Your task to perform on an android device: Show me recent news Image 0: 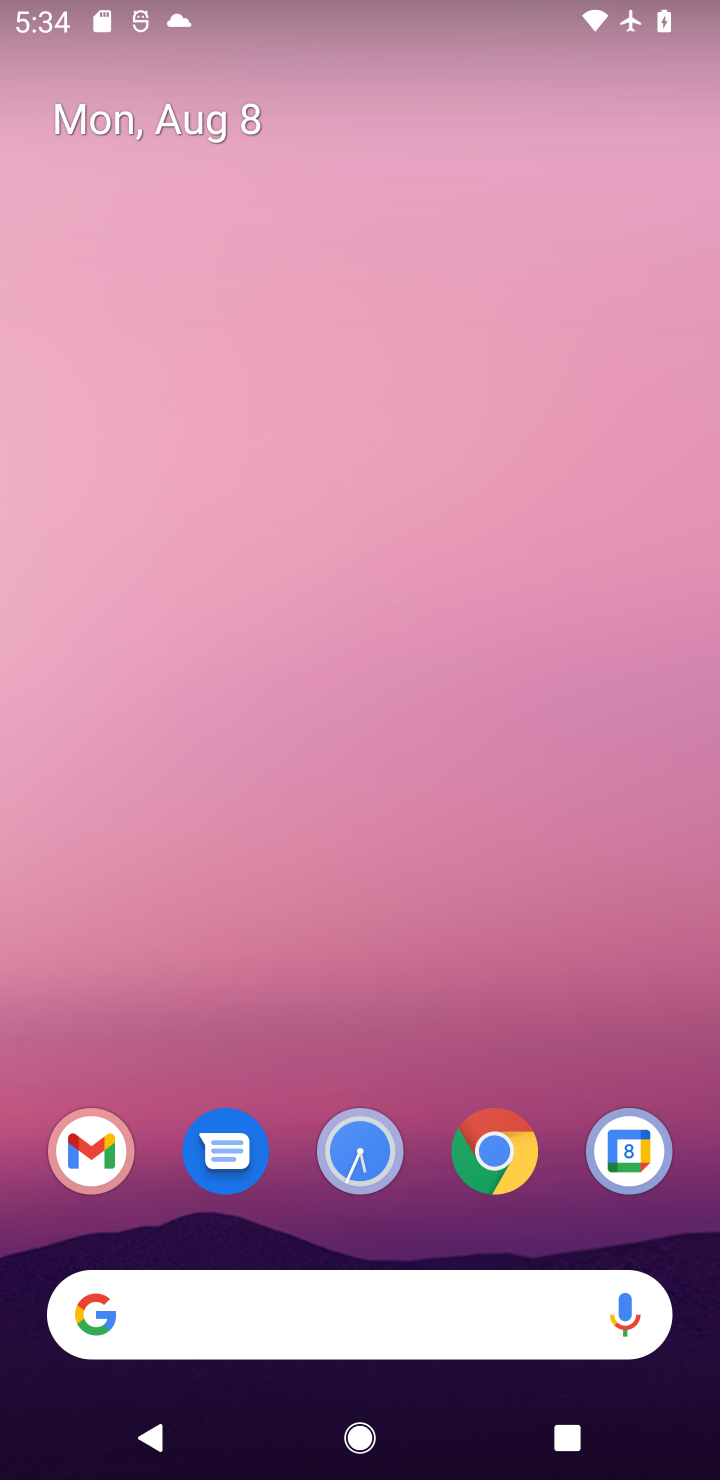
Step 0: drag from (486, 1027) to (427, 124)
Your task to perform on an android device: Show me recent news Image 1: 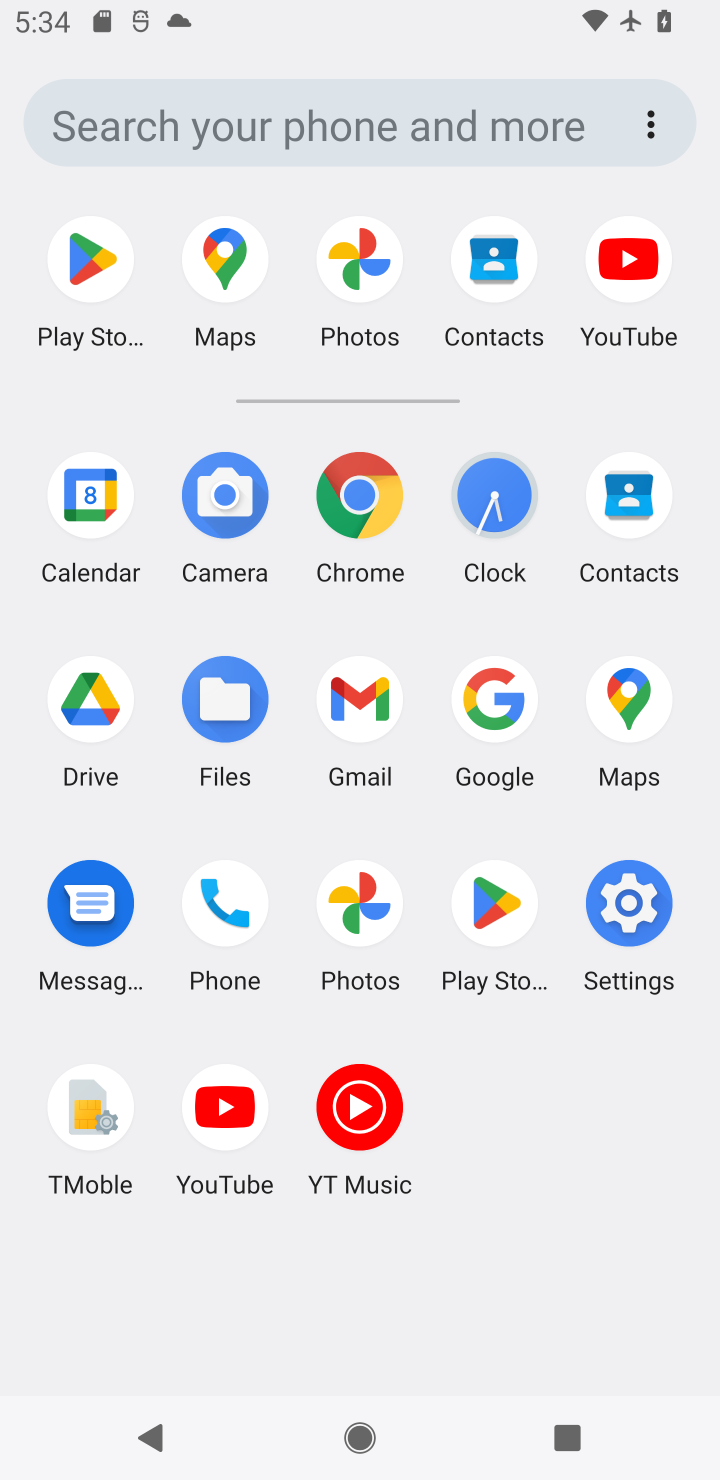
Step 1: click (486, 706)
Your task to perform on an android device: Show me recent news Image 2: 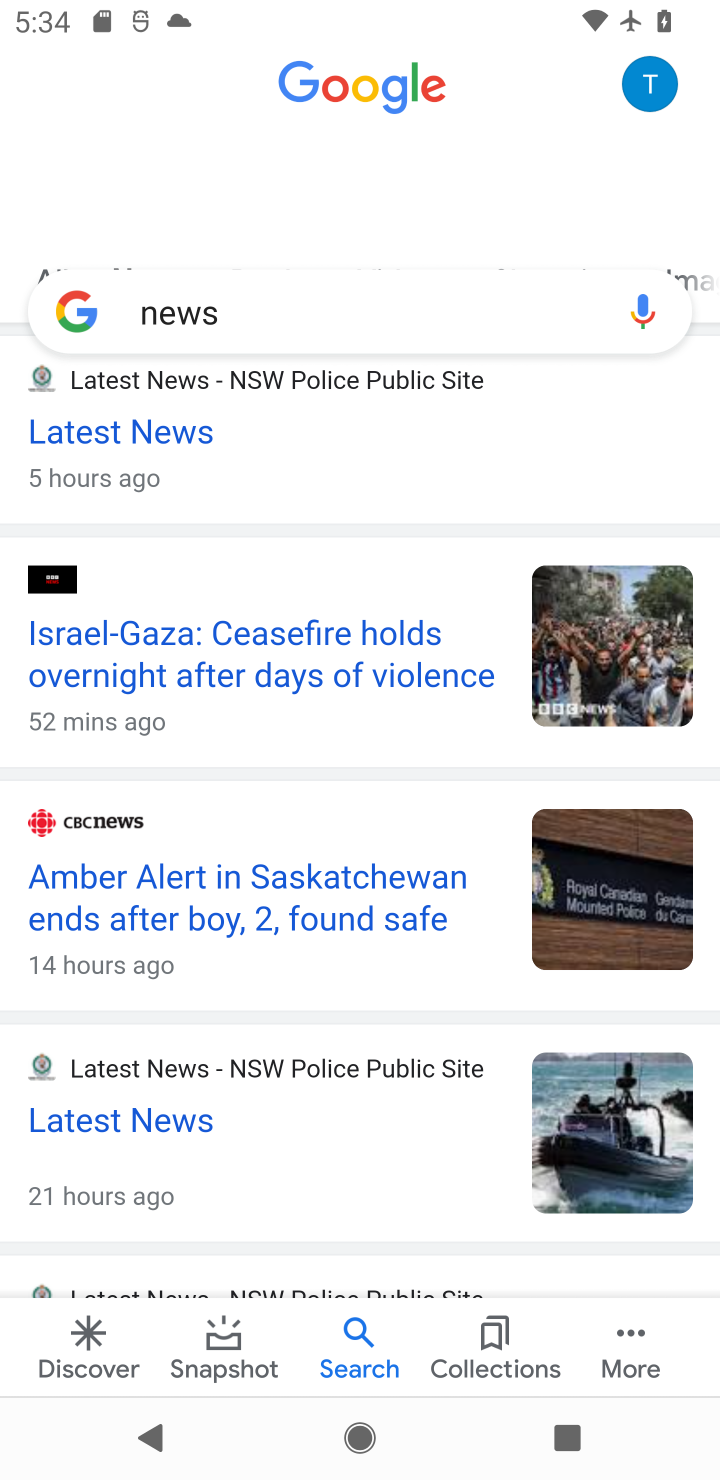
Step 2: drag from (298, 425) to (294, 1043)
Your task to perform on an android device: Show me recent news Image 3: 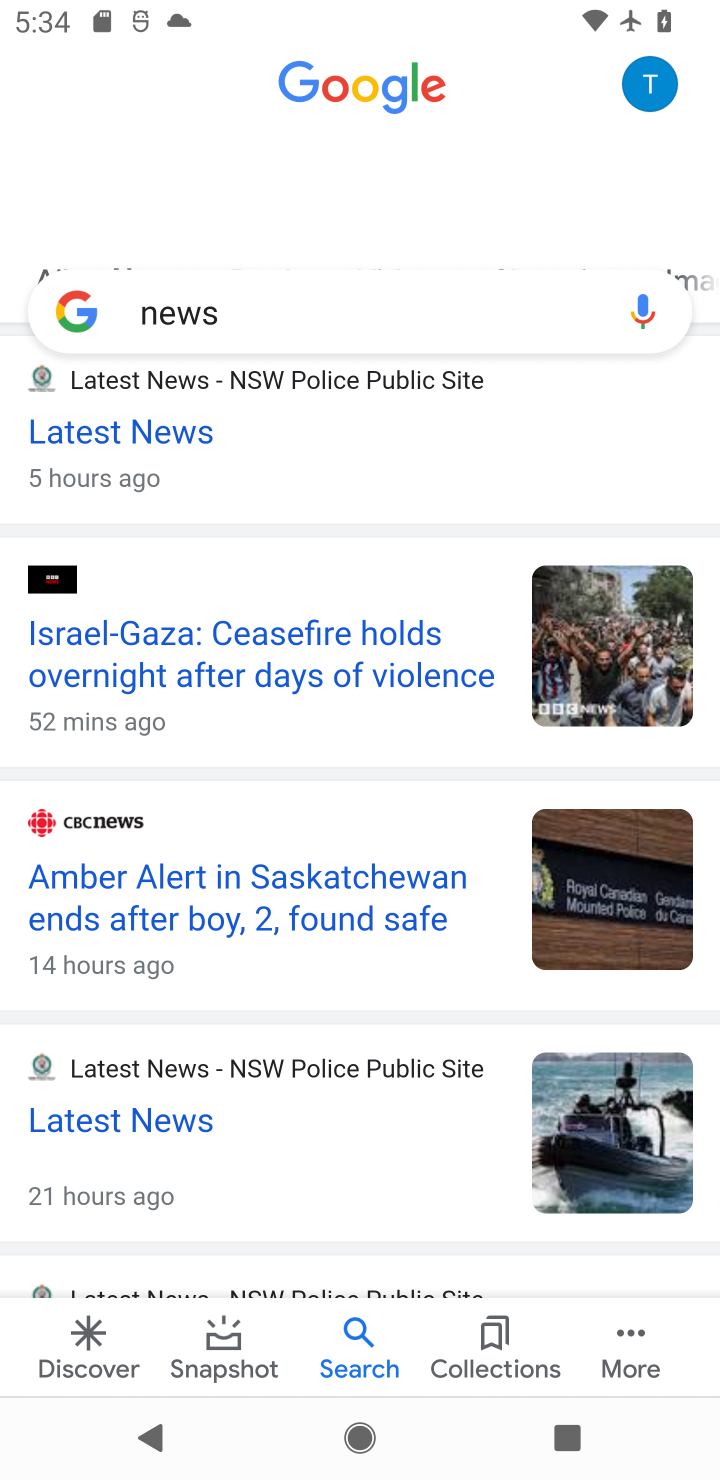
Step 3: drag from (221, 437) to (307, 1007)
Your task to perform on an android device: Show me recent news Image 4: 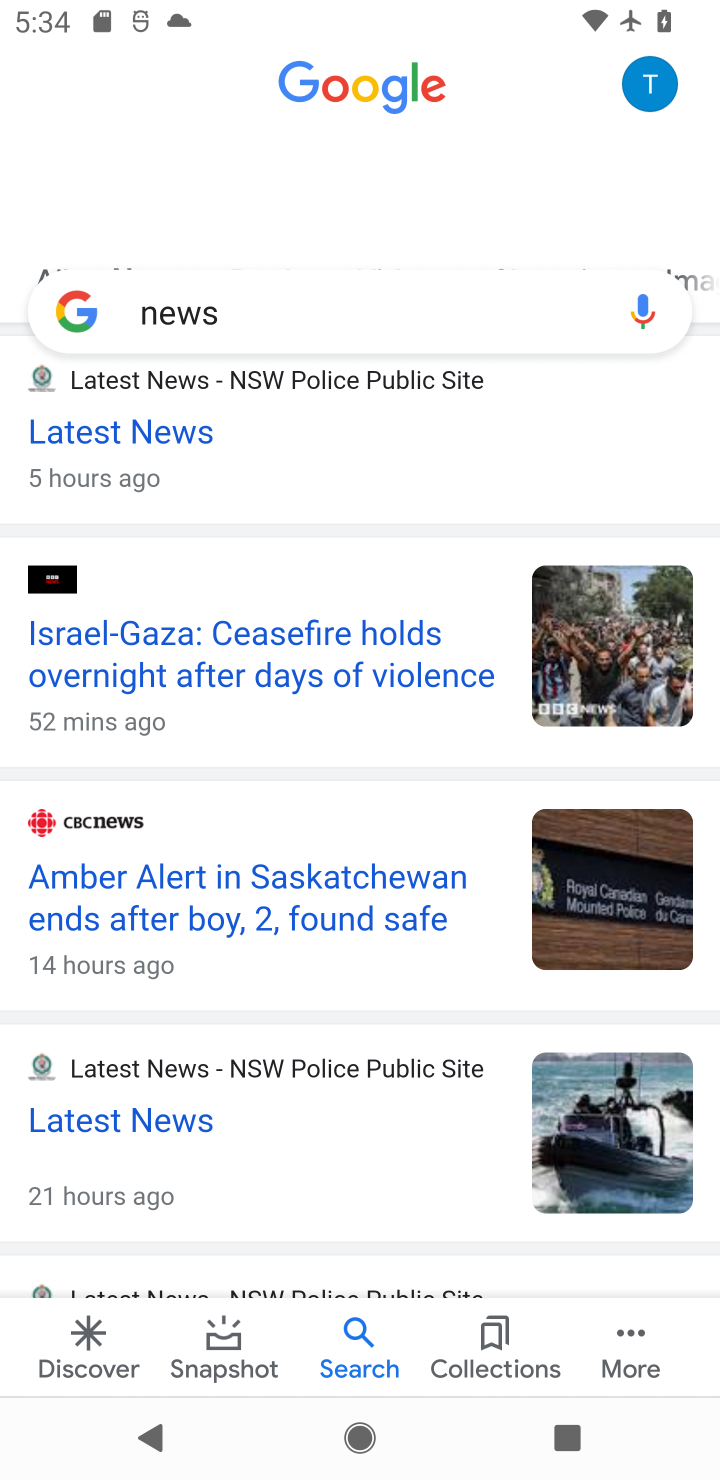
Step 4: drag from (320, 966) to (381, 338)
Your task to perform on an android device: Show me recent news Image 5: 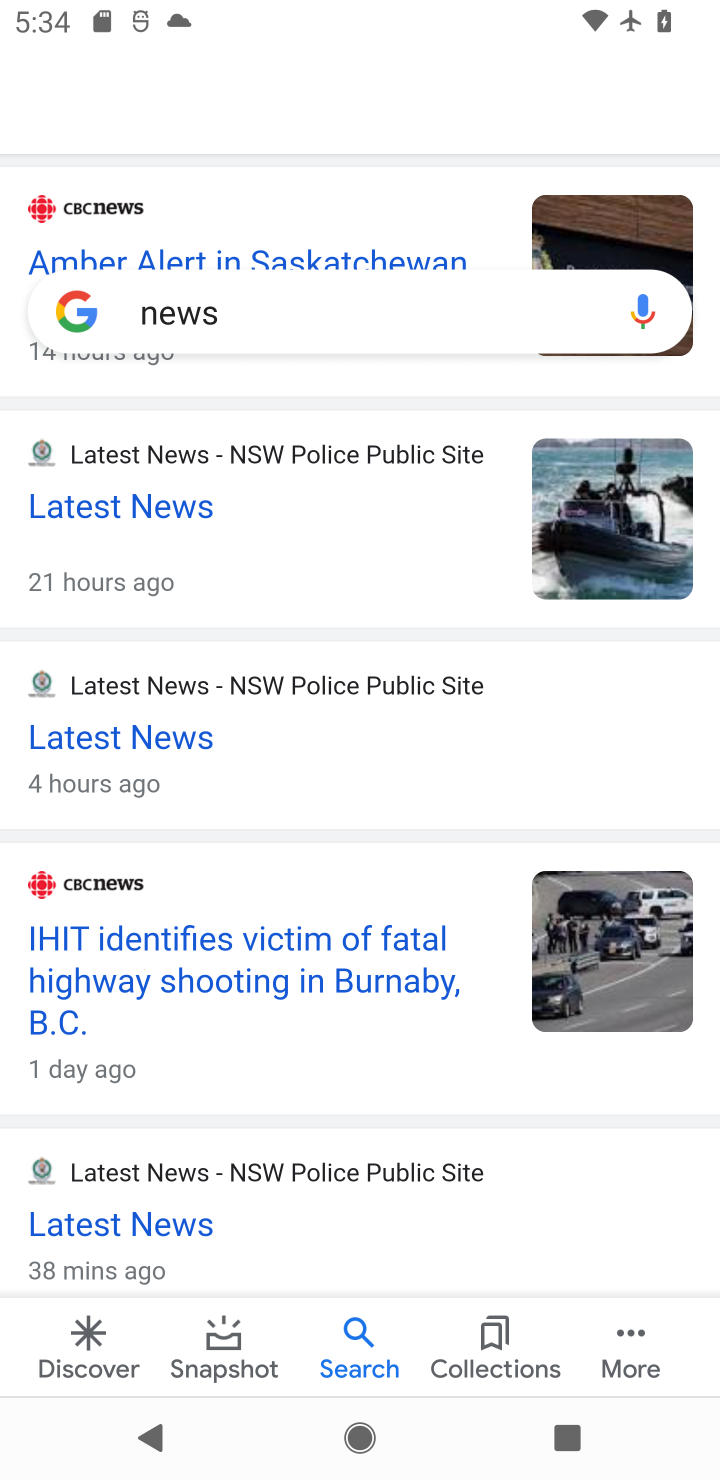
Step 5: drag from (381, 338) to (366, 930)
Your task to perform on an android device: Show me recent news Image 6: 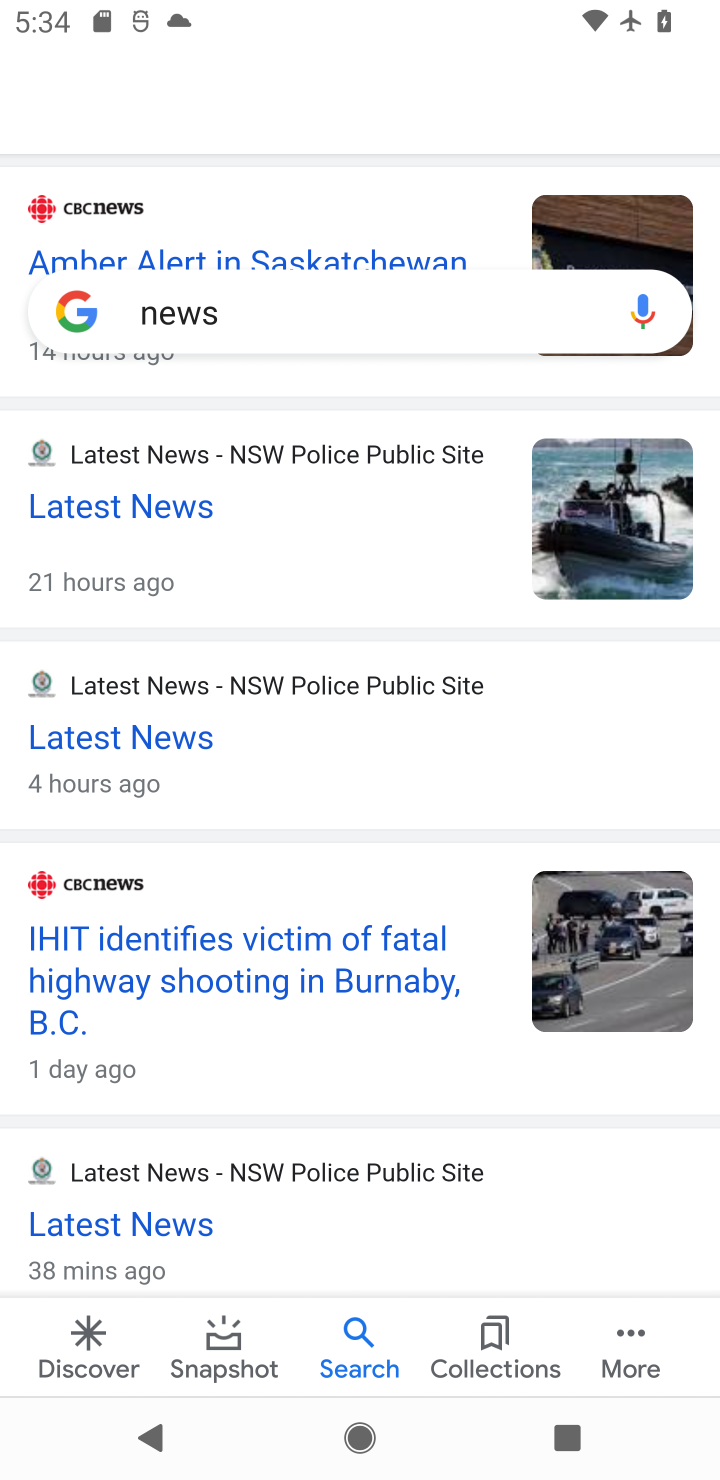
Step 6: drag from (385, 618) to (406, 1122)
Your task to perform on an android device: Show me recent news Image 7: 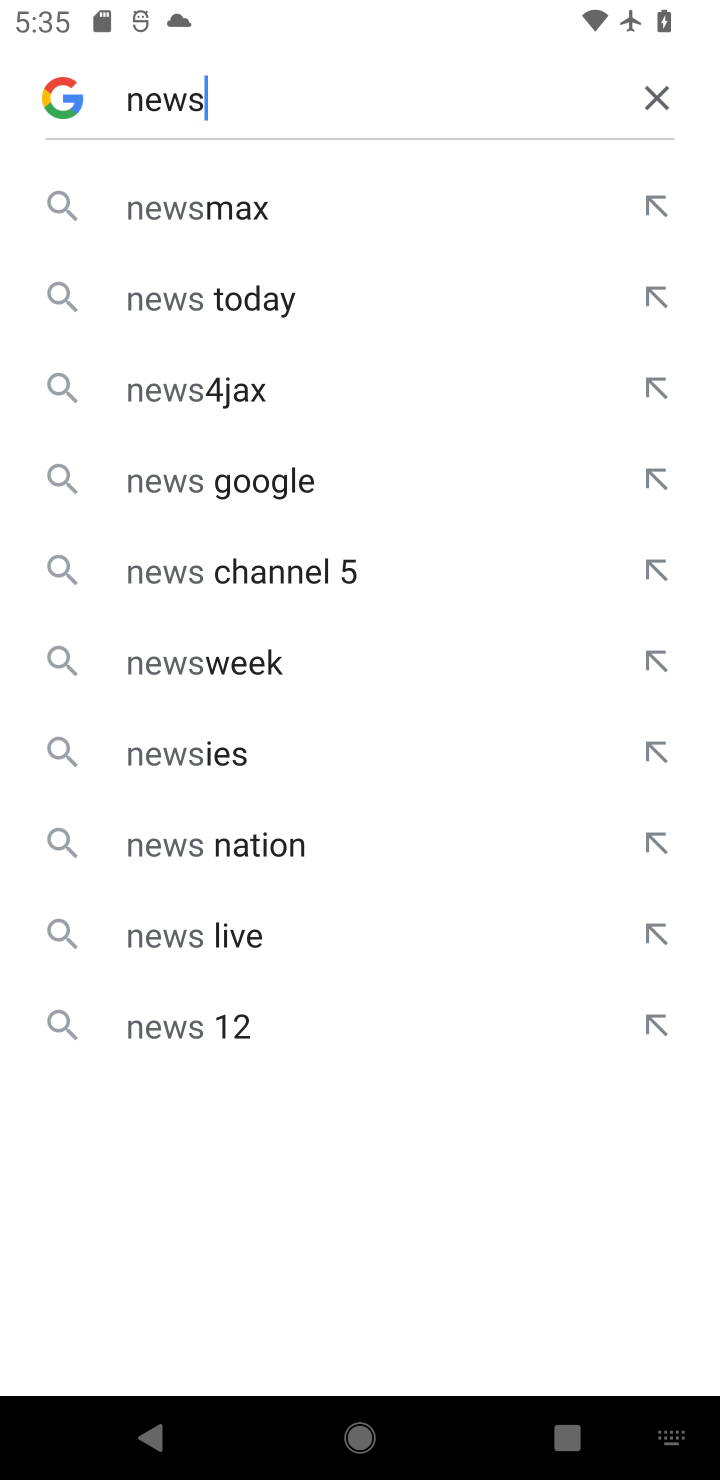
Step 7: drag from (360, 624) to (360, 1178)
Your task to perform on an android device: Show me recent news Image 8: 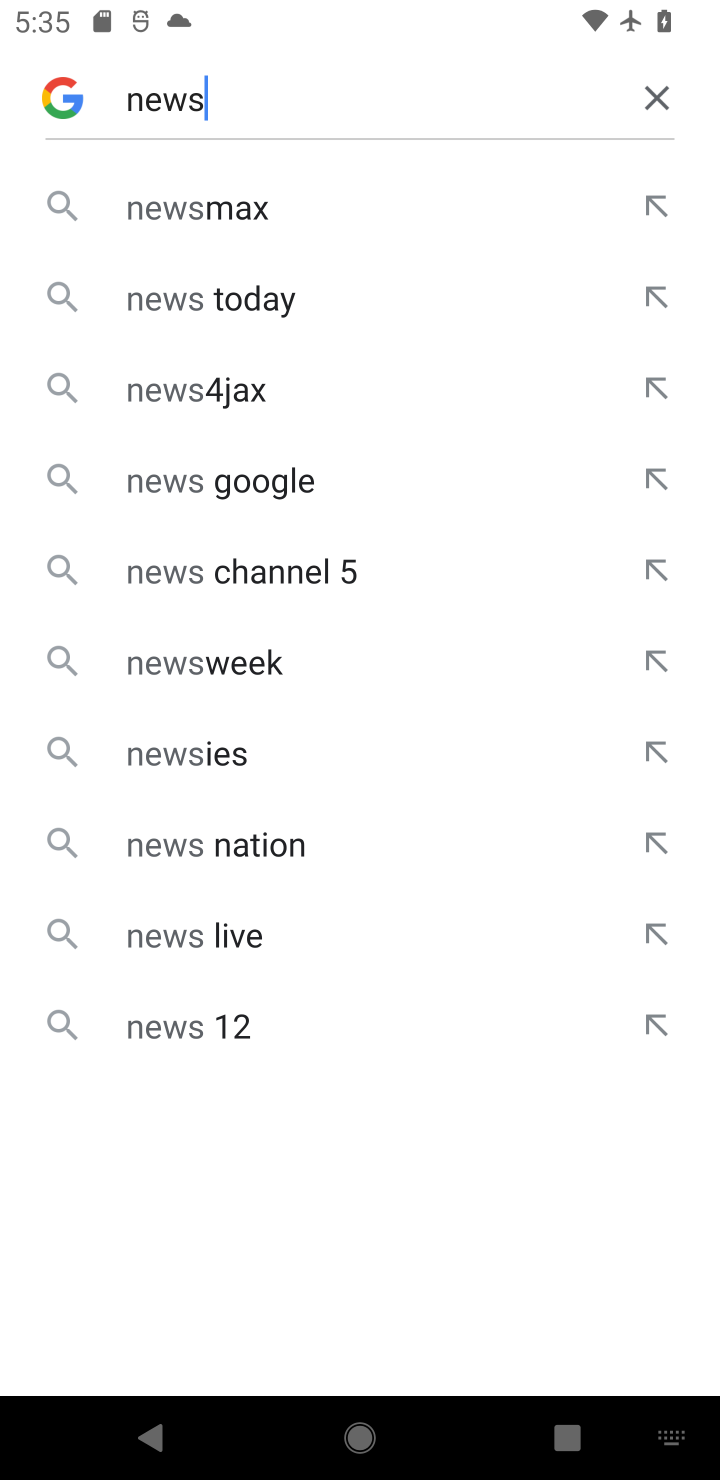
Step 8: click (281, 295)
Your task to perform on an android device: Show me recent news Image 9: 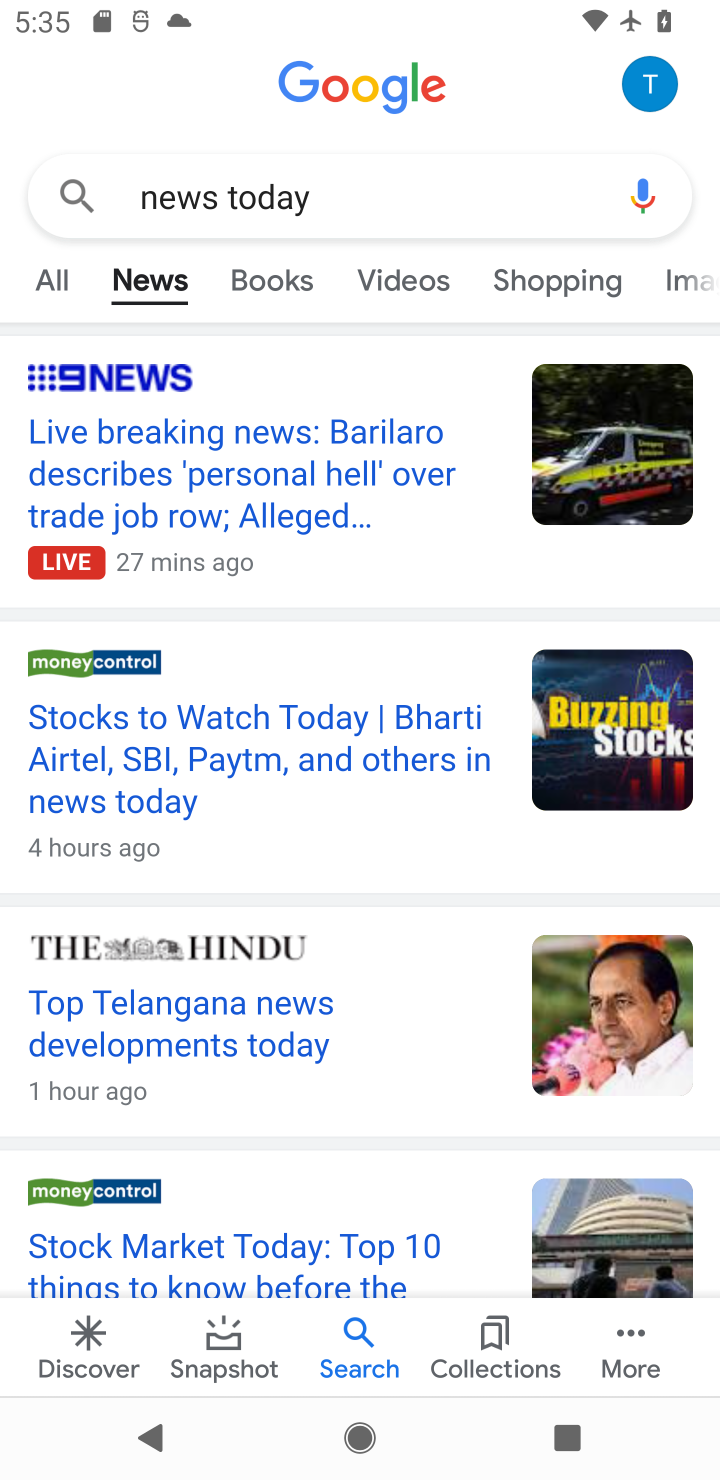
Step 9: task complete